Your task to perform on an android device: see tabs open on other devices in the chrome app Image 0: 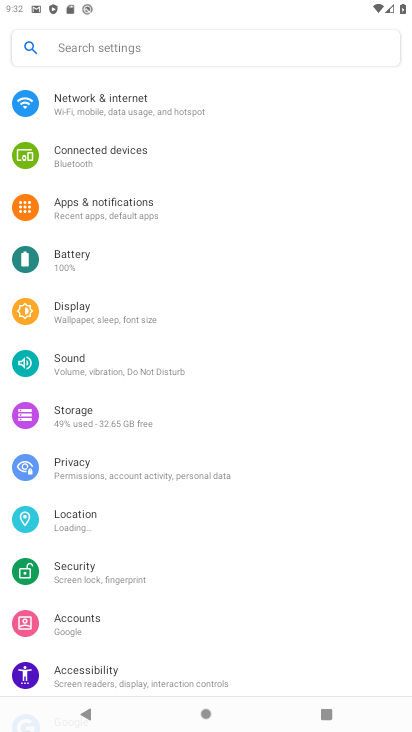
Step 0: press back button
Your task to perform on an android device: see tabs open on other devices in the chrome app Image 1: 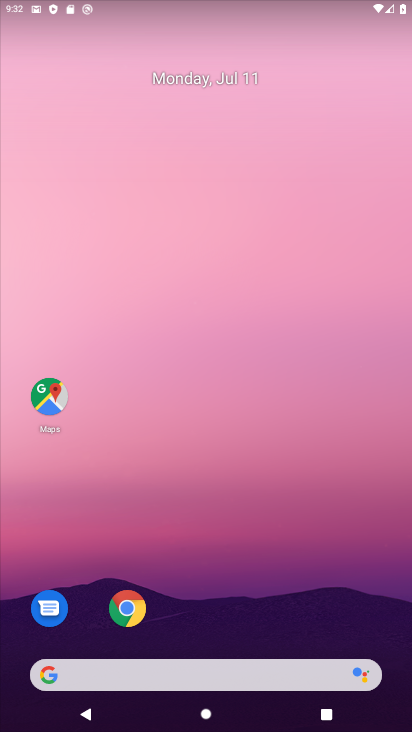
Step 1: drag from (271, 702) to (250, 212)
Your task to perform on an android device: see tabs open on other devices in the chrome app Image 2: 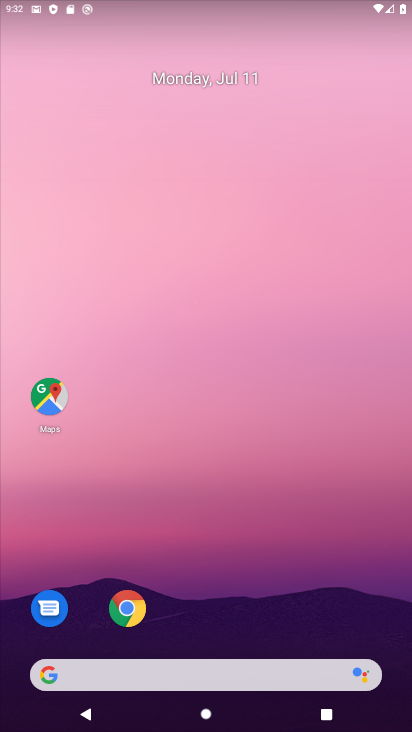
Step 2: drag from (255, 590) to (245, 186)
Your task to perform on an android device: see tabs open on other devices in the chrome app Image 3: 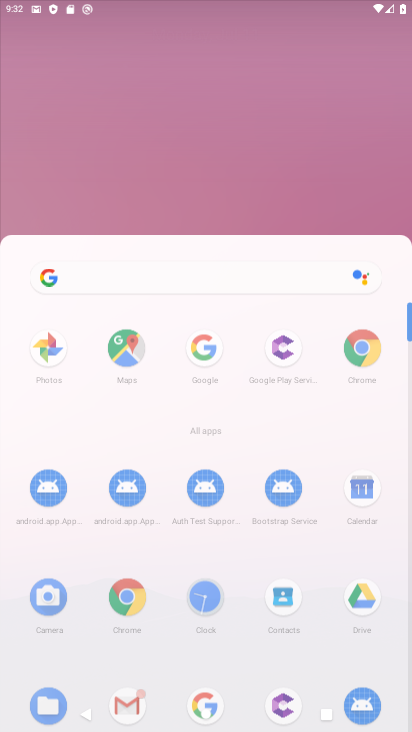
Step 3: drag from (204, 547) to (220, 15)
Your task to perform on an android device: see tabs open on other devices in the chrome app Image 4: 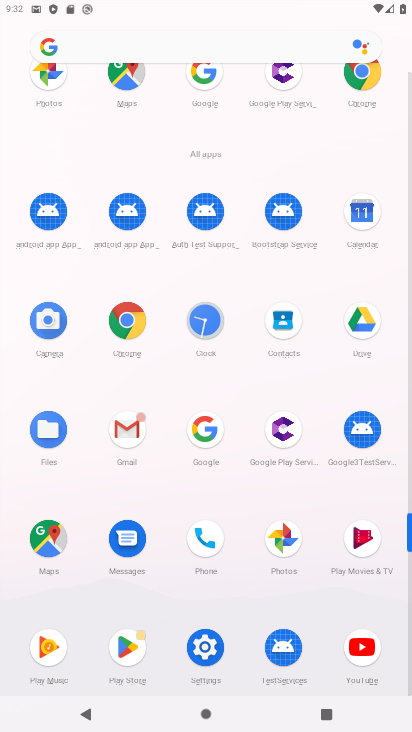
Step 4: click (210, 435)
Your task to perform on an android device: see tabs open on other devices in the chrome app Image 5: 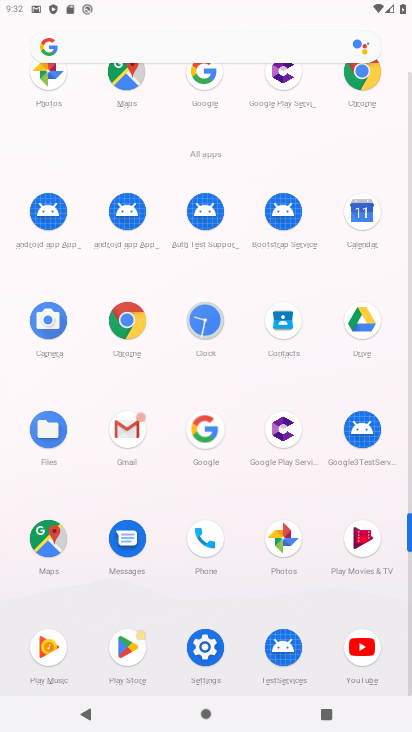
Step 5: click (201, 431)
Your task to perform on an android device: see tabs open on other devices in the chrome app Image 6: 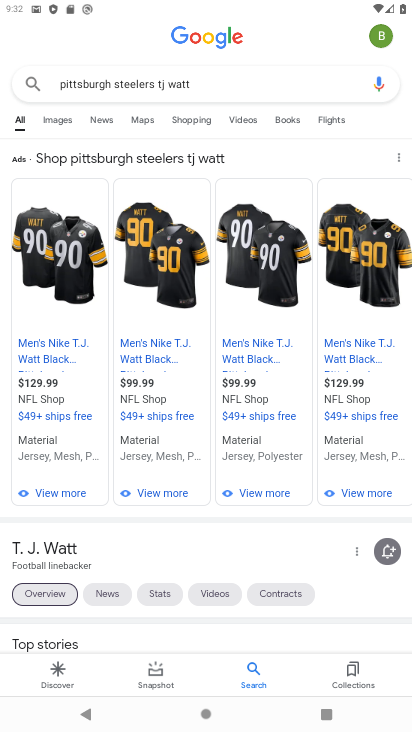
Step 6: press back button
Your task to perform on an android device: see tabs open on other devices in the chrome app Image 7: 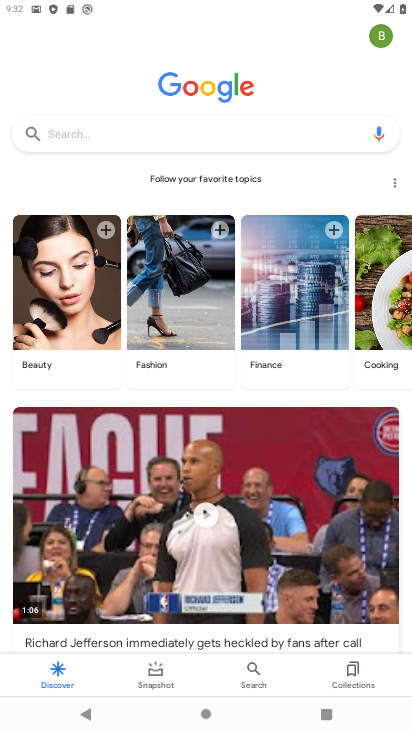
Step 7: press home button
Your task to perform on an android device: see tabs open on other devices in the chrome app Image 8: 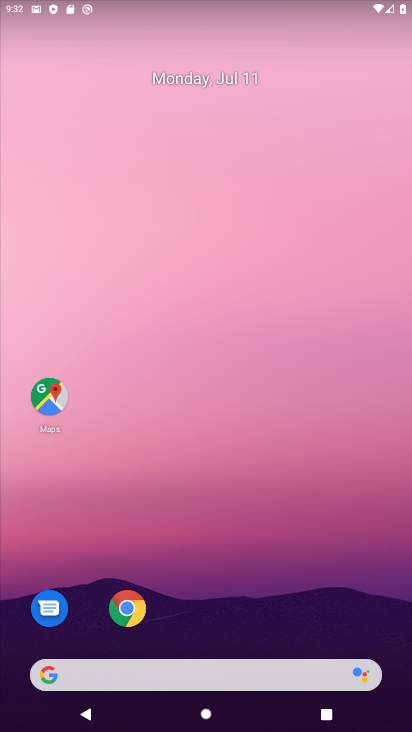
Step 8: drag from (275, 690) to (130, 119)
Your task to perform on an android device: see tabs open on other devices in the chrome app Image 9: 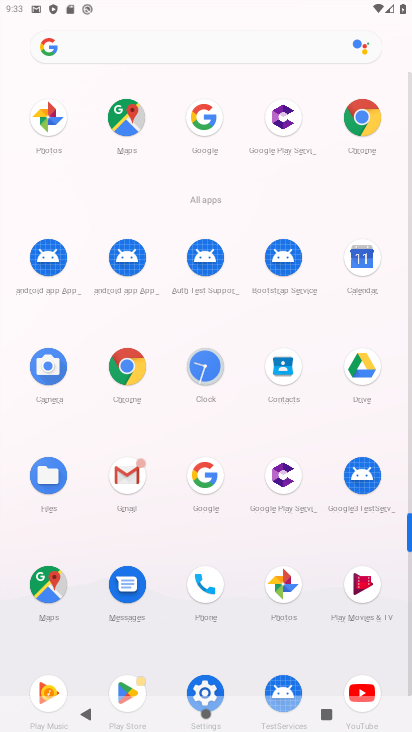
Step 9: click (119, 356)
Your task to perform on an android device: see tabs open on other devices in the chrome app Image 10: 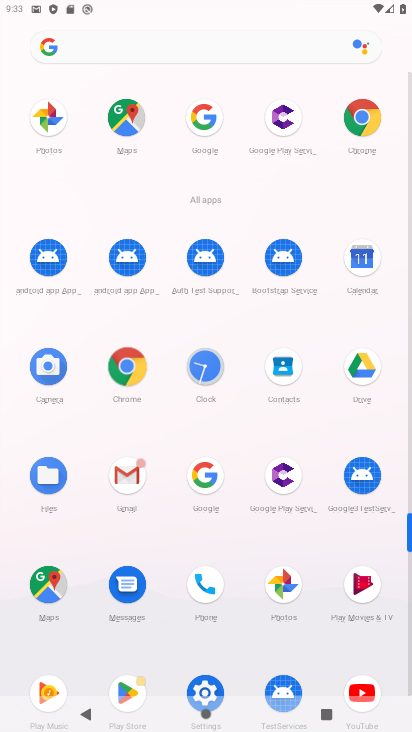
Step 10: click (119, 356)
Your task to perform on an android device: see tabs open on other devices in the chrome app Image 11: 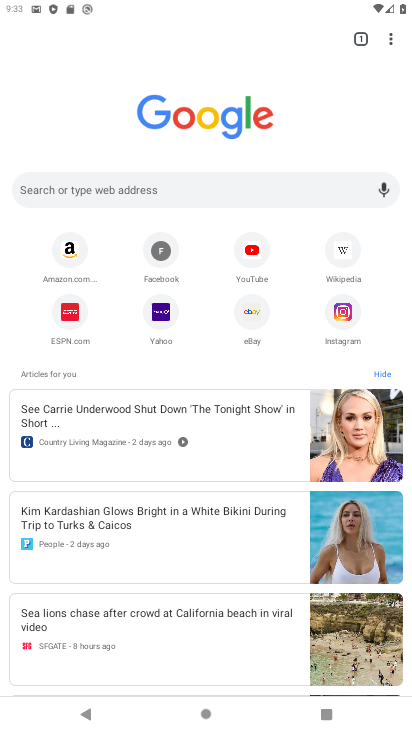
Step 11: drag from (390, 38) to (254, 187)
Your task to perform on an android device: see tabs open on other devices in the chrome app Image 12: 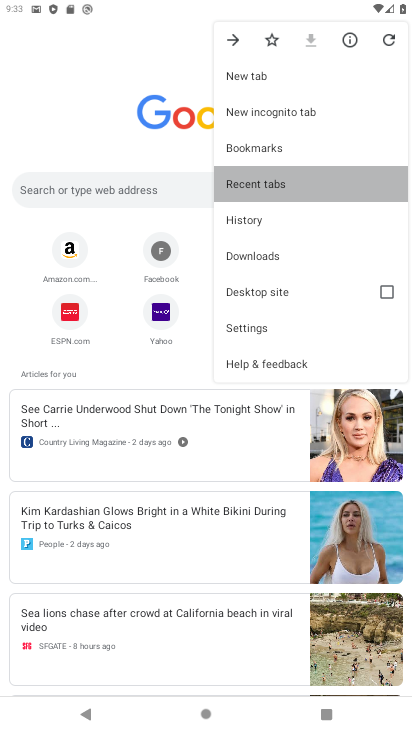
Step 12: click (253, 189)
Your task to perform on an android device: see tabs open on other devices in the chrome app Image 13: 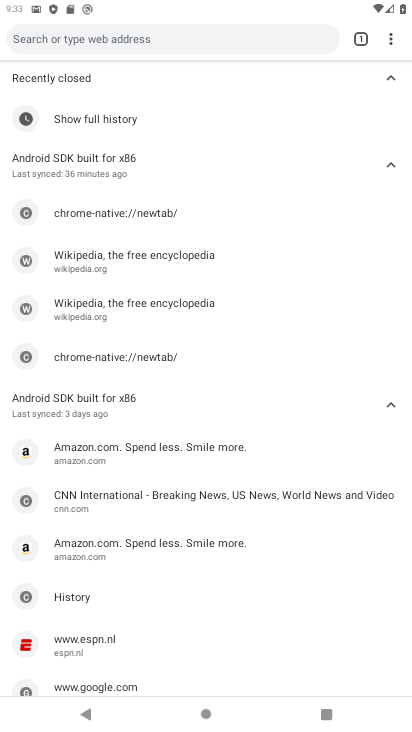
Step 13: task complete